Your task to perform on an android device: open app "VLC for Android" Image 0: 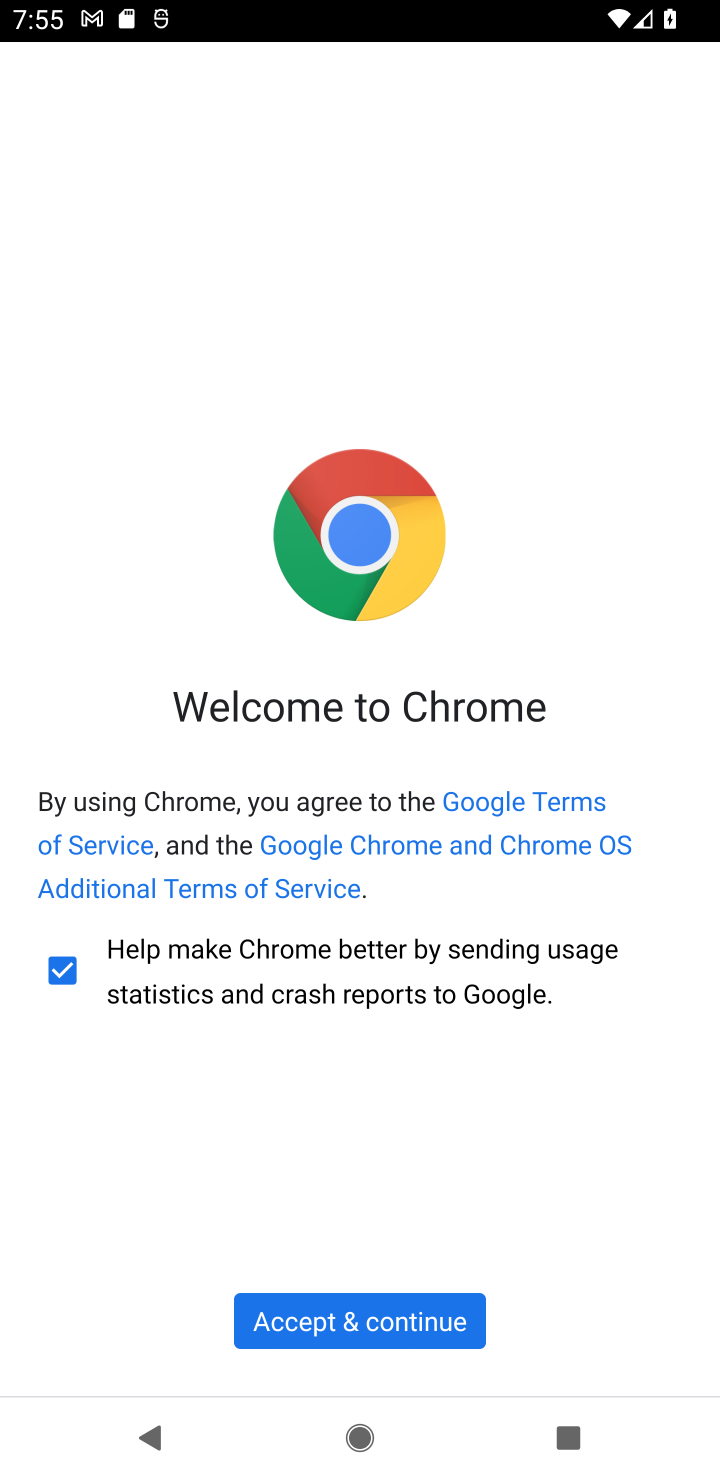
Step 0: press home button
Your task to perform on an android device: open app "VLC for Android" Image 1: 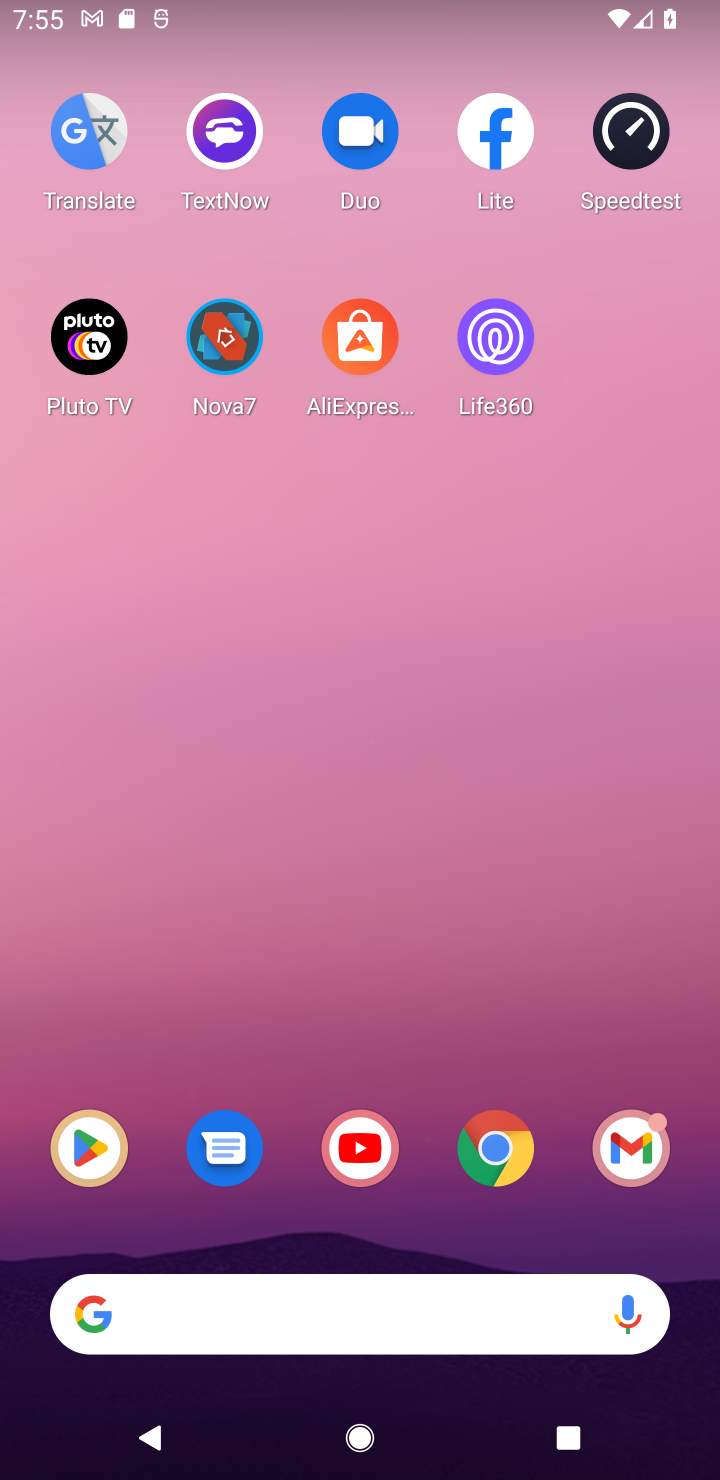
Step 1: drag from (567, 1229) to (400, 48)
Your task to perform on an android device: open app "VLC for Android" Image 2: 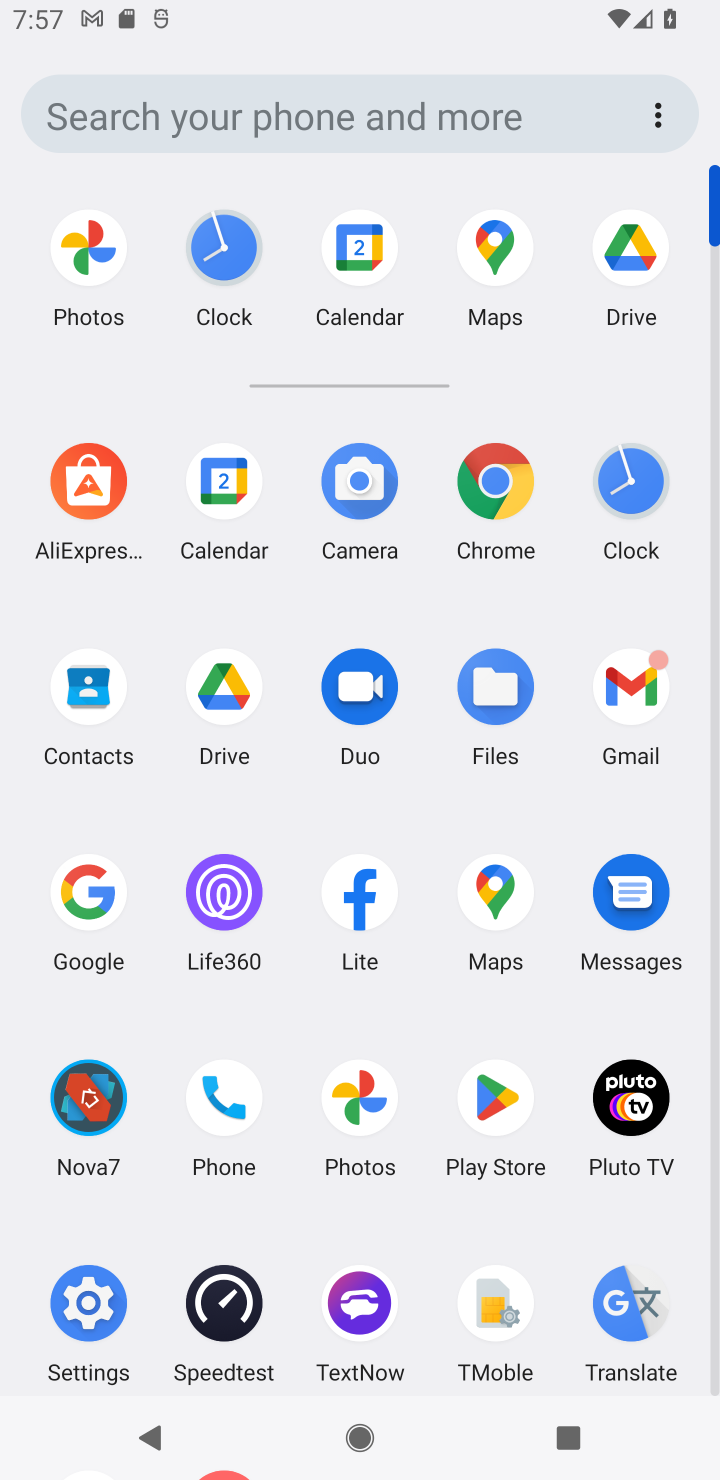
Step 2: click (493, 1095)
Your task to perform on an android device: open app "VLC for Android" Image 3: 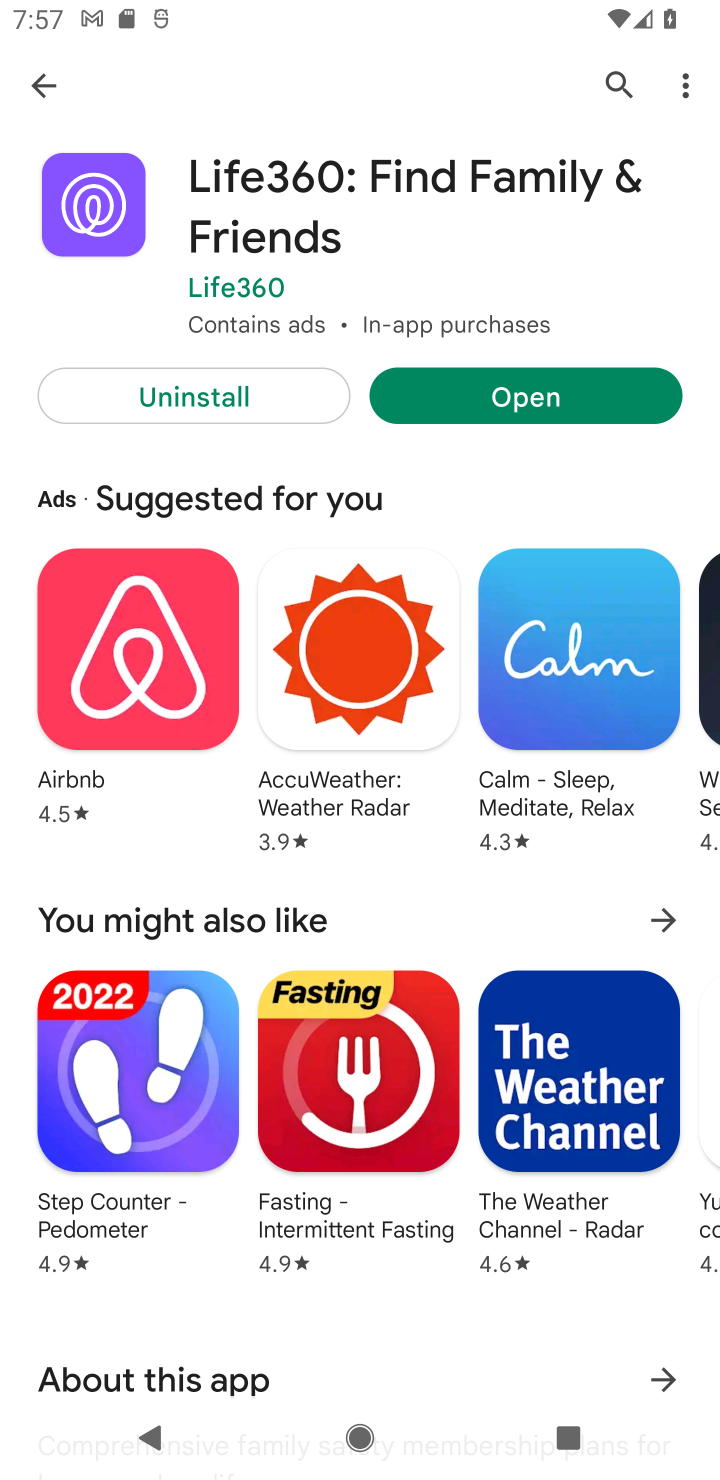
Step 3: press back button
Your task to perform on an android device: open app "VLC for Android" Image 4: 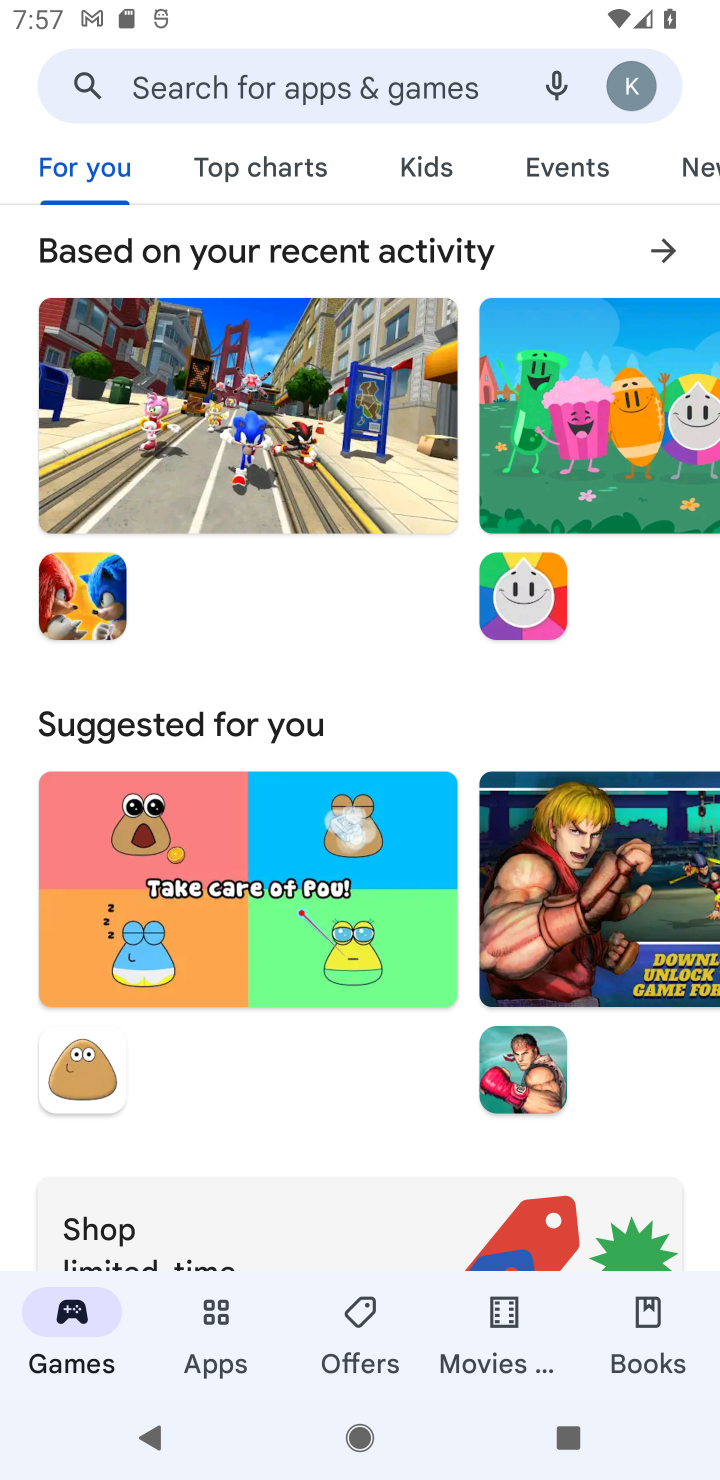
Step 4: click (192, 89)
Your task to perform on an android device: open app "VLC for Android" Image 5: 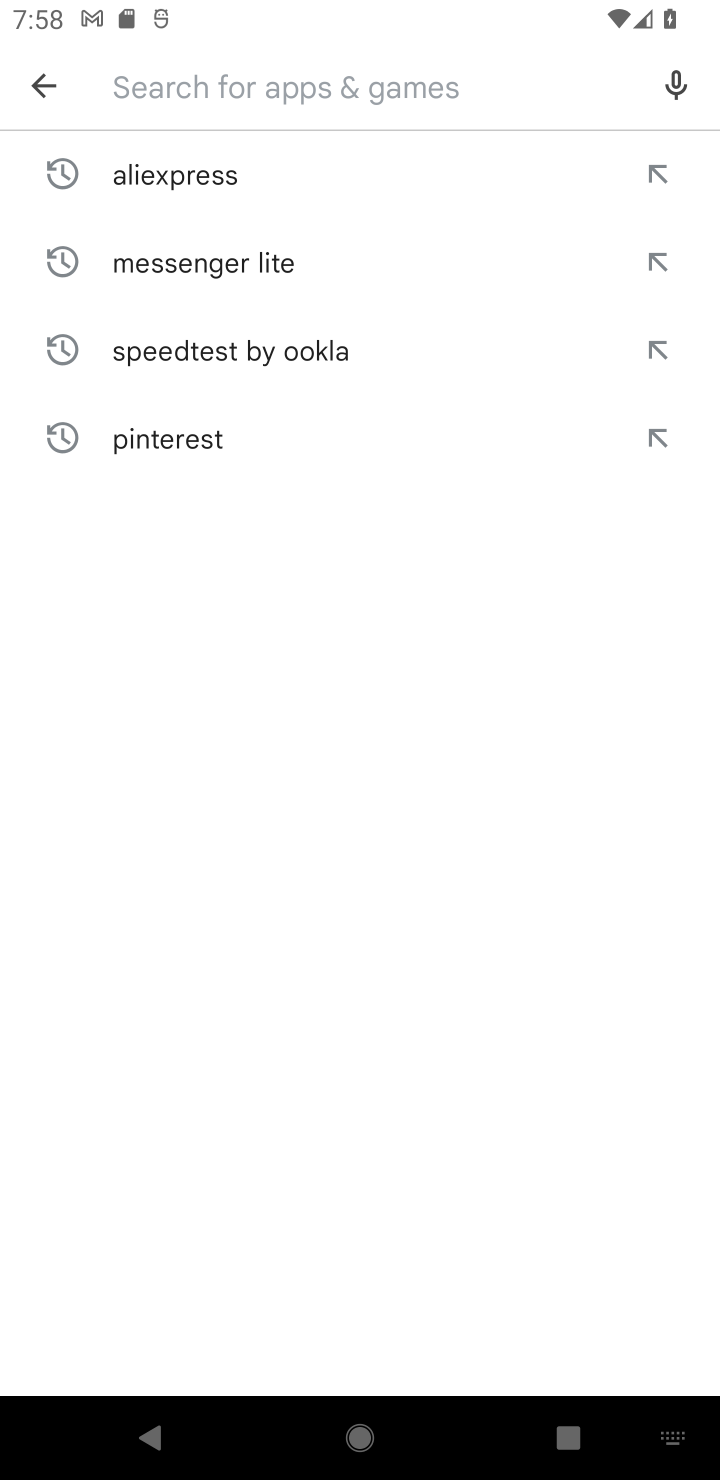
Step 5: type "VLC for Android"
Your task to perform on an android device: open app "VLC for Android" Image 6: 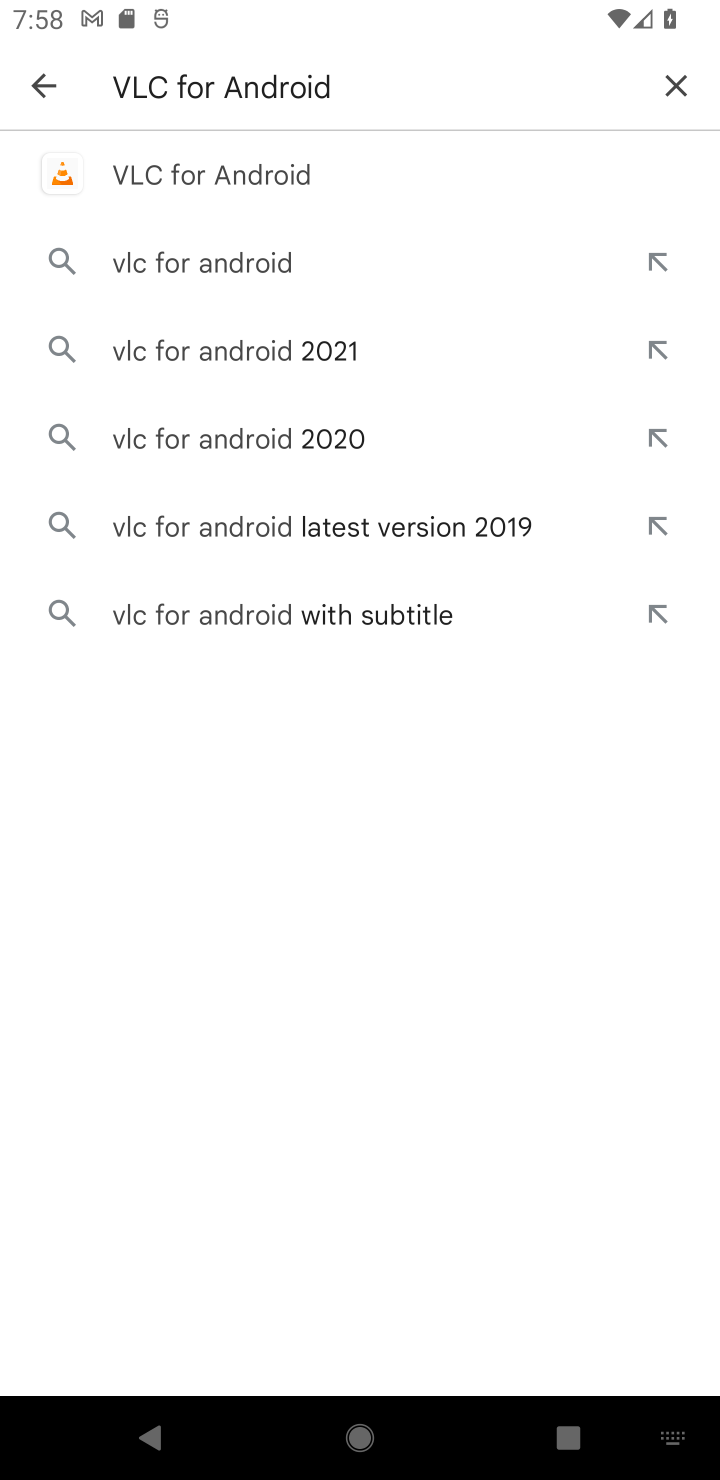
Step 6: click (292, 193)
Your task to perform on an android device: open app "VLC for Android" Image 7: 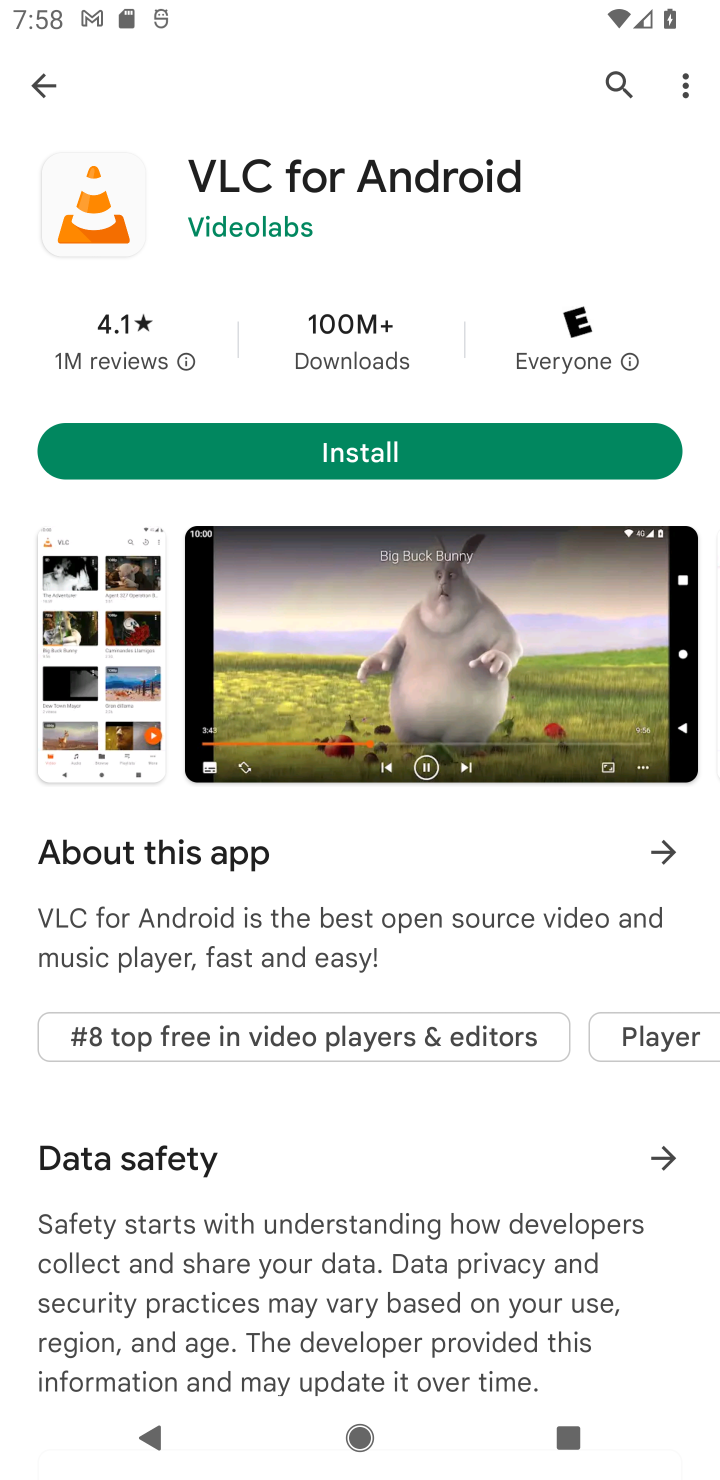
Step 7: task complete